Your task to perform on an android device: turn off smart reply in the gmail app Image 0: 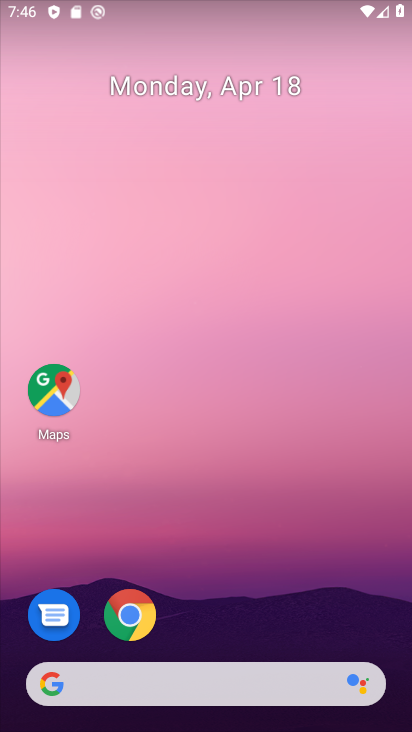
Step 0: drag from (314, 549) to (342, 77)
Your task to perform on an android device: turn off smart reply in the gmail app Image 1: 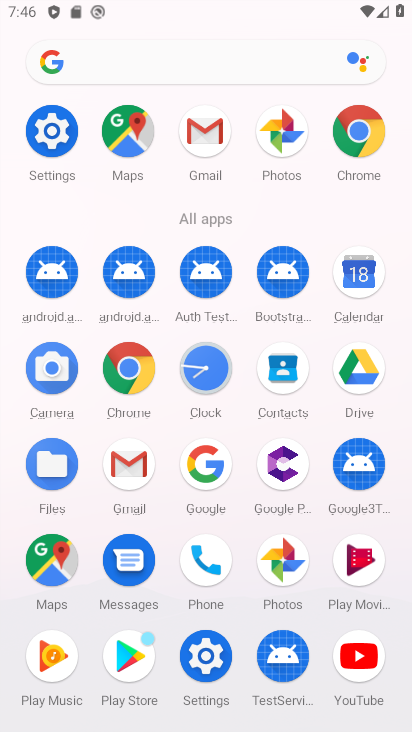
Step 1: click (210, 132)
Your task to perform on an android device: turn off smart reply in the gmail app Image 2: 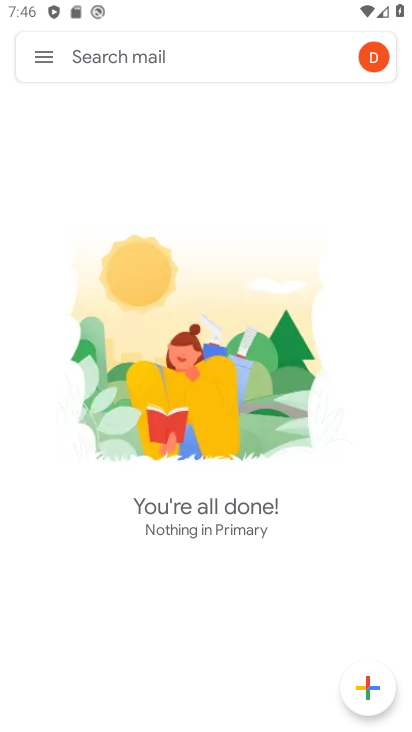
Step 2: click (47, 55)
Your task to perform on an android device: turn off smart reply in the gmail app Image 3: 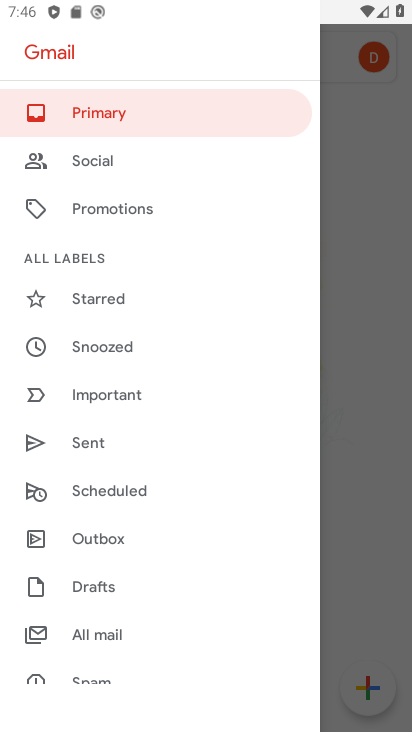
Step 3: drag from (133, 587) to (184, 224)
Your task to perform on an android device: turn off smart reply in the gmail app Image 4: 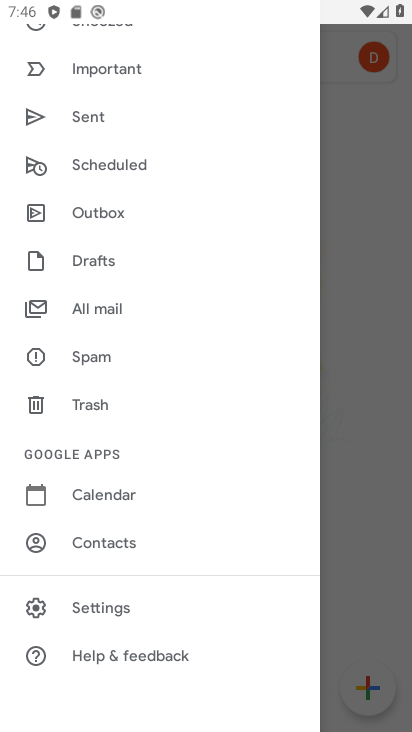
Step 4: click (111, 598)
Your task to perform on an android device: turn off smart reply in the gmail app Image 5: 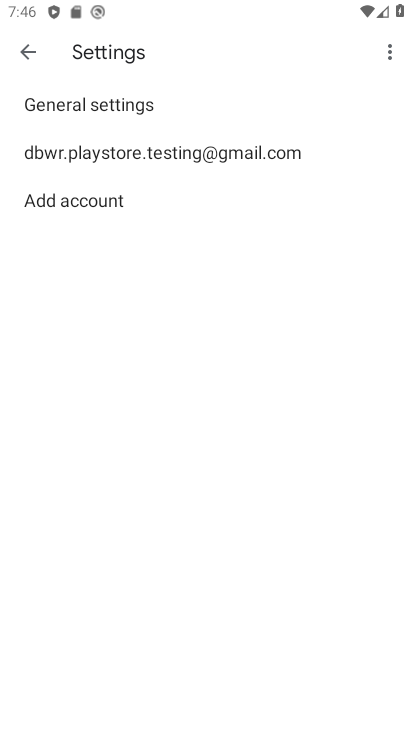
Step 5: click (277, 154)
Your task to perform on an android device: turn off smart reply in the gmail app Image 6: 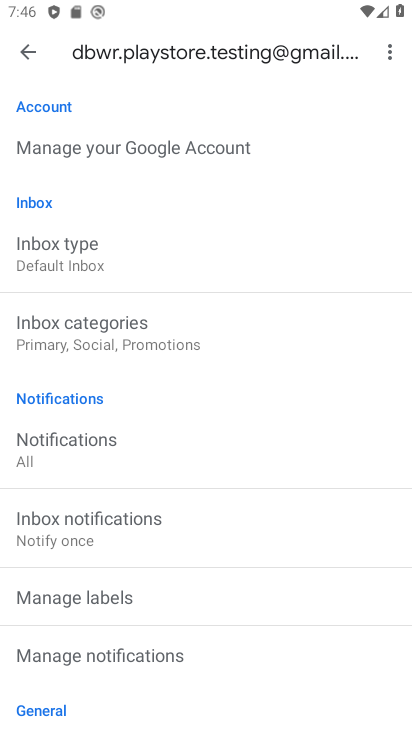
Step 6: drag from (200, 567) to (260, 125)
Your task to perform on an android device: turn off smart reply in the gmail app Image 7: 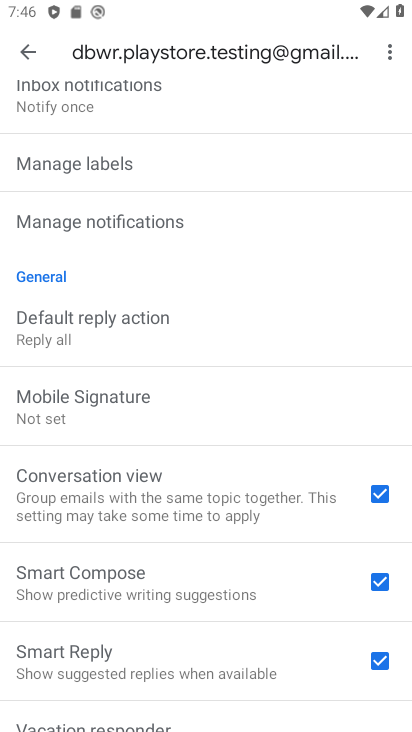
Step 7: click (381, 648)
Your task to perform on an android device: turn off smart reply in the gmail app Image 8: 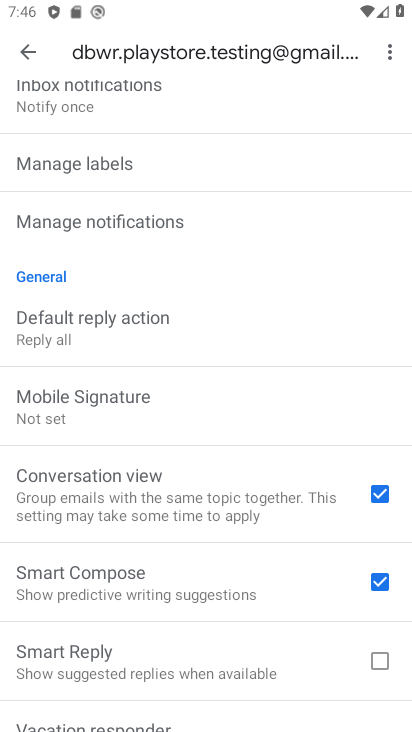
Step 8: task complete